Your task to perform on an android device: open app "Chime – Mobile Banking" (install if not already installed) and go to login screen Image 0: 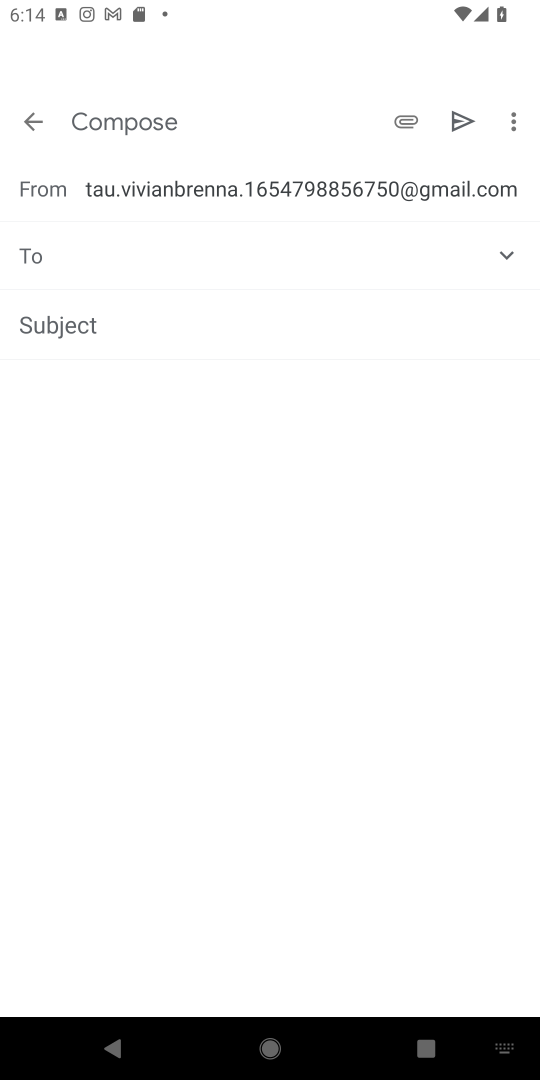
Step 0: press home button
Your task to perform on an android device: open app "Chime – Mobile Banking" (install if not already installed) and go to login screen Image 1: 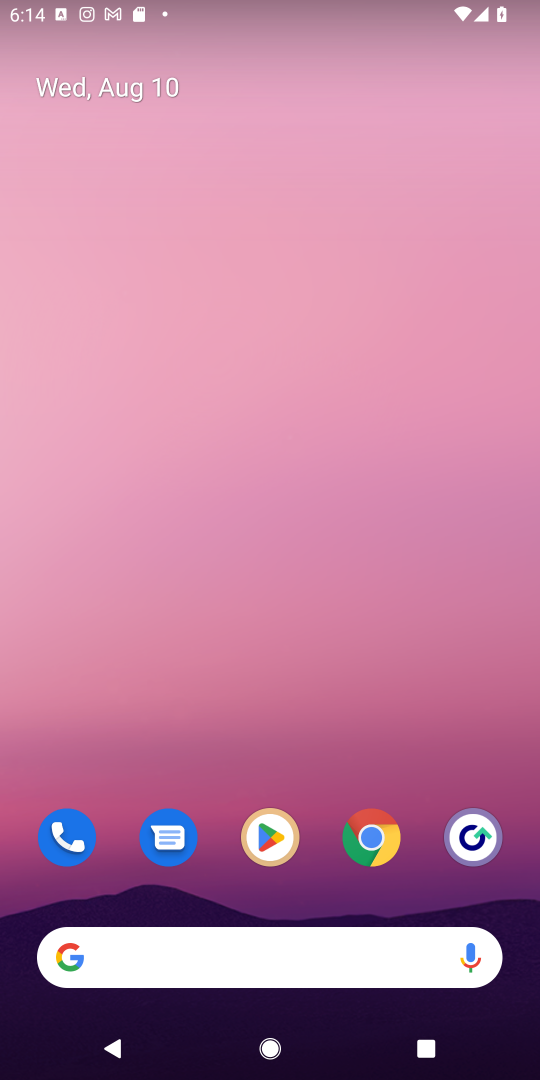
Step 1: click (372, 832)
Your task to perform on an android device: open app "Chime – Mobile Banking" (install if not already installed) and go to login screen Image 2: 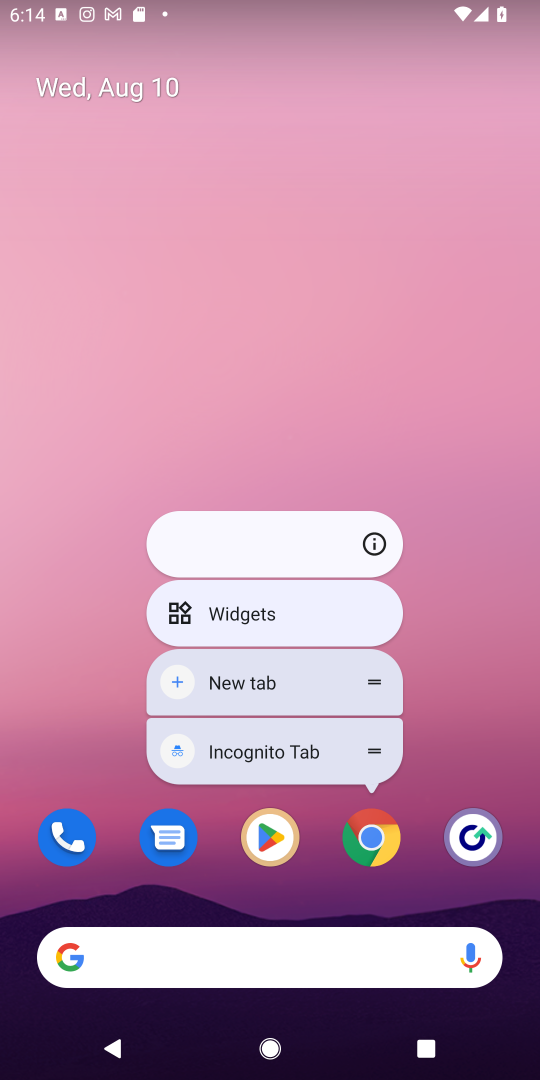
Step 2: click (372, 835)
Your task to perform on an android device: open app "Chime – Mobile Banking" (install if not already installed) and go to login screen Image 3: 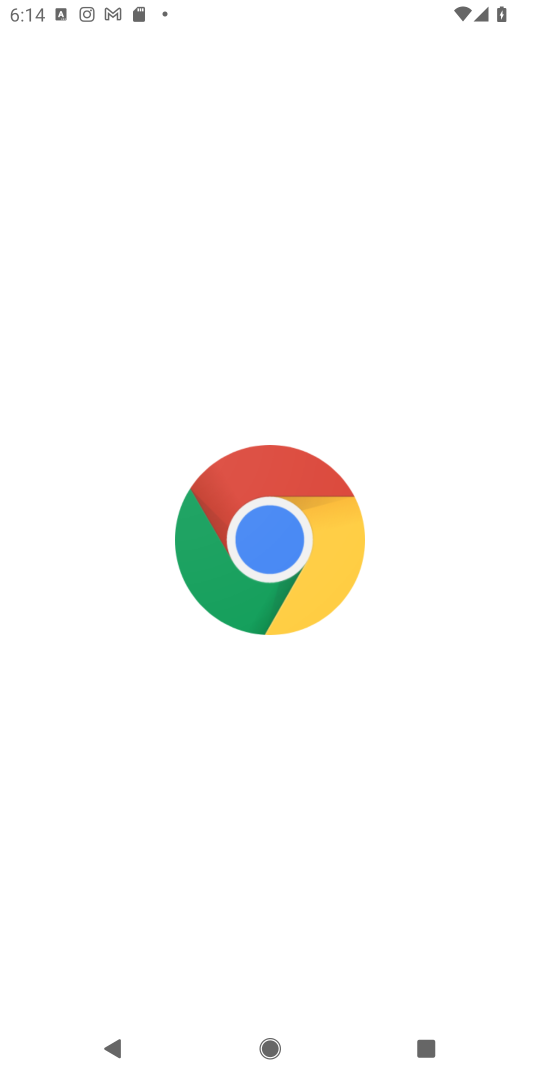
Step 3: press home button
Your task to perform on an android device: open app "Chime – Mobile Banking" (install if not already installed) and go to login screen Image 4: 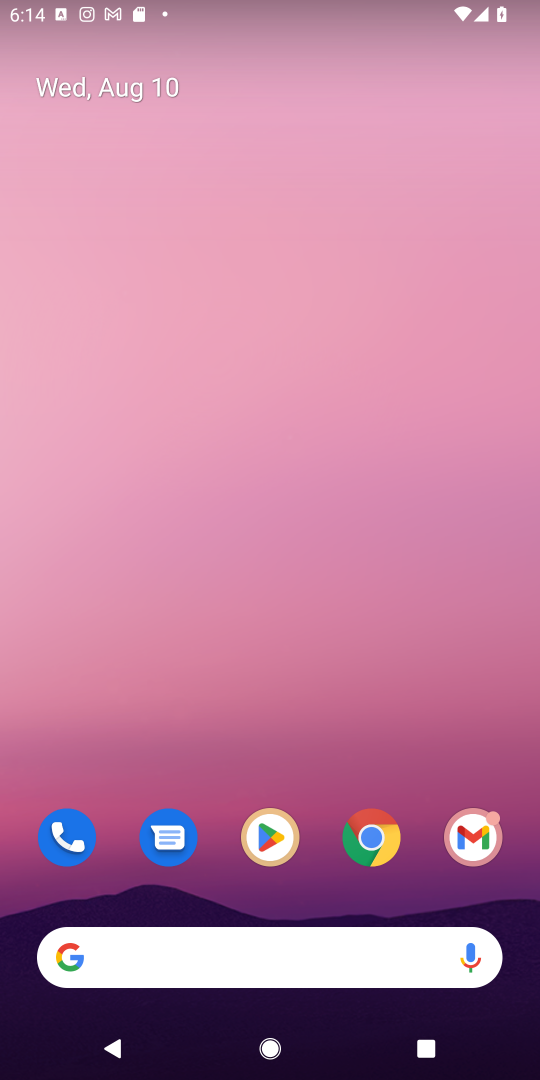
Step 4: click (267, 824)
Your task to perform on an android device: open app "Chime – Mobile Banking" (install if not already installed) and go to login screen Image 5: 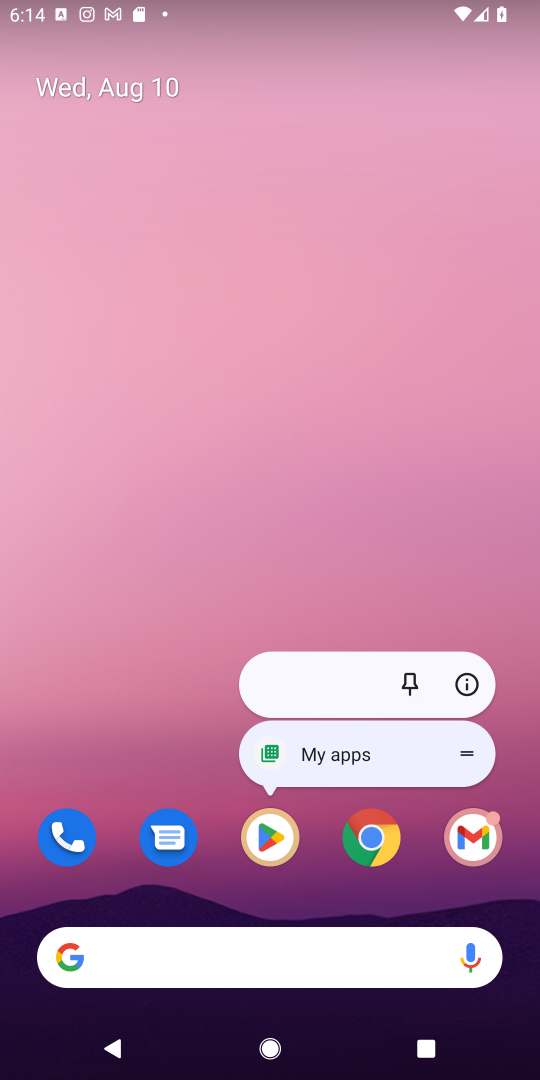
Step 5: click (267, 827)
Your task to perform on an android device: open app "Chime – Mobile Banking" (install if not already installed) and go to login screen Image 6: 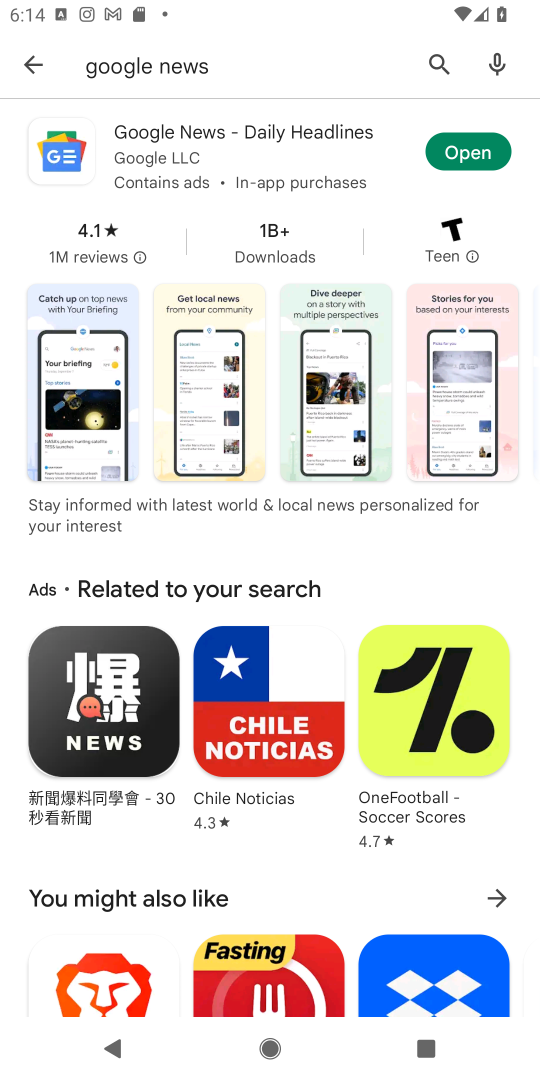
Step 6: click (434, 59)
Your task to perform on an android device: open app "Chime – Mobile Banking" (install if not already installed) and go to login screen Image 7: 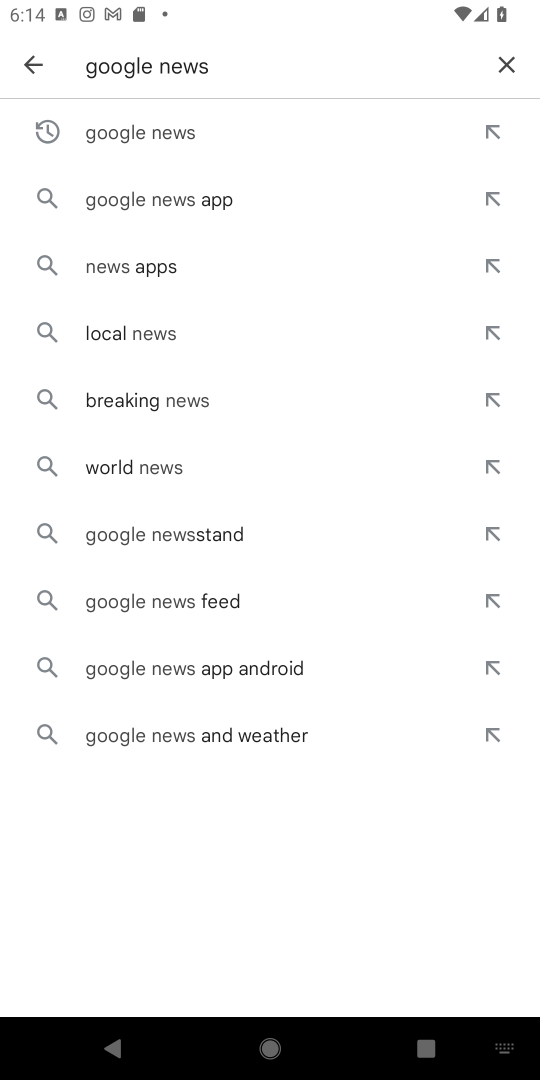
Step 7: click (508, 54)
Your task to perform on an android device: open app "Chime – Mobile Banking" (install if not already installed) and go to login screen Image 8: 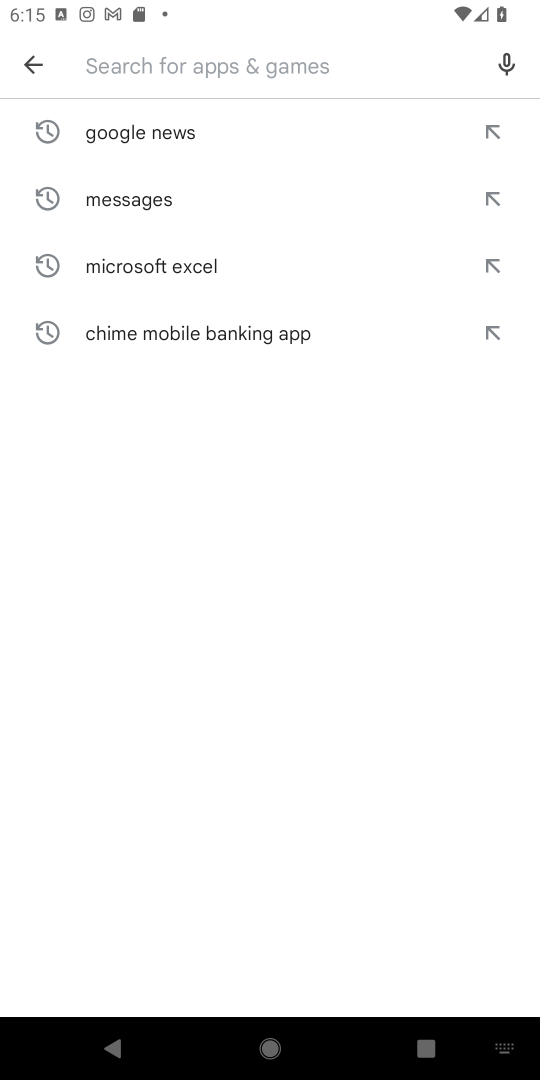
Step 8: type "Chime Mobile Banking"
Your task to perform on an android device: open app "Chime – Mobile Banking" (install if not already installed) and go to login screen Image 9: 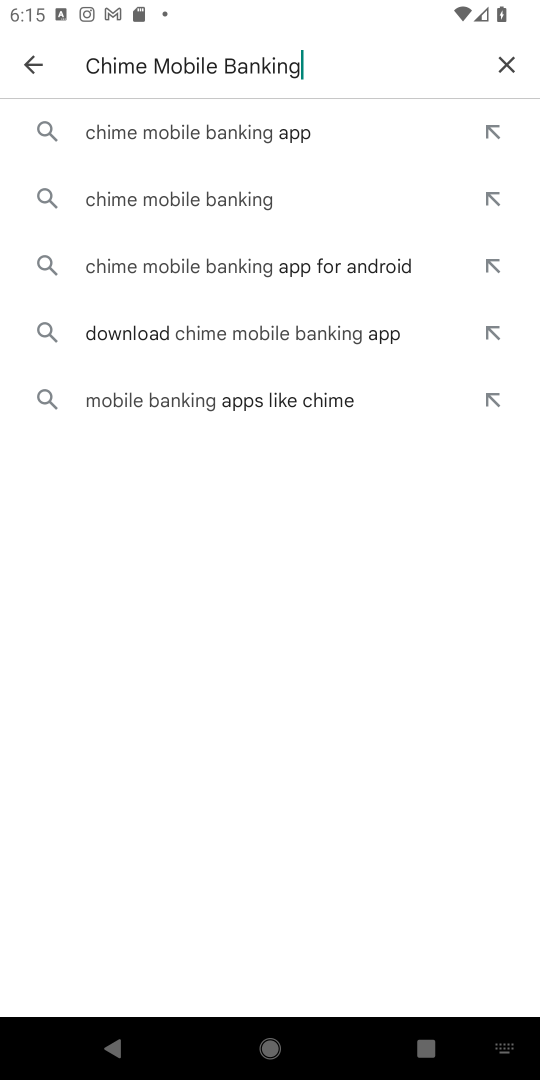
Step 9: click (262, 129)
Your task to perform on an android device: open app "Chime – Mobile Banking" (install if not already installed) and go to login screen Image 10: 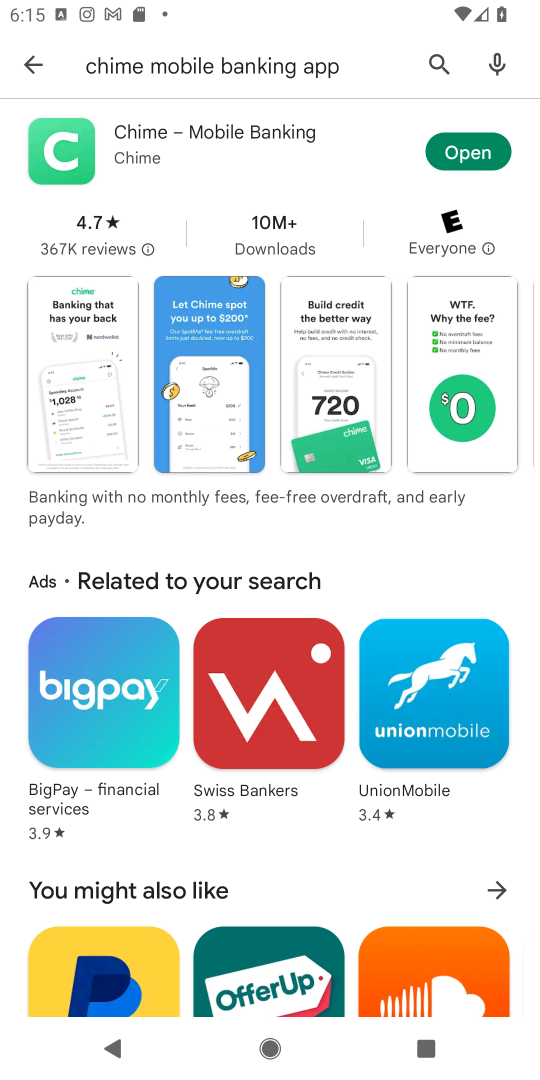
Step 10: click (486, 154)
Your task to perform on an android device: open app "Chime – Mobile Banking" (install if not already installed) and go to login screen Image 11: 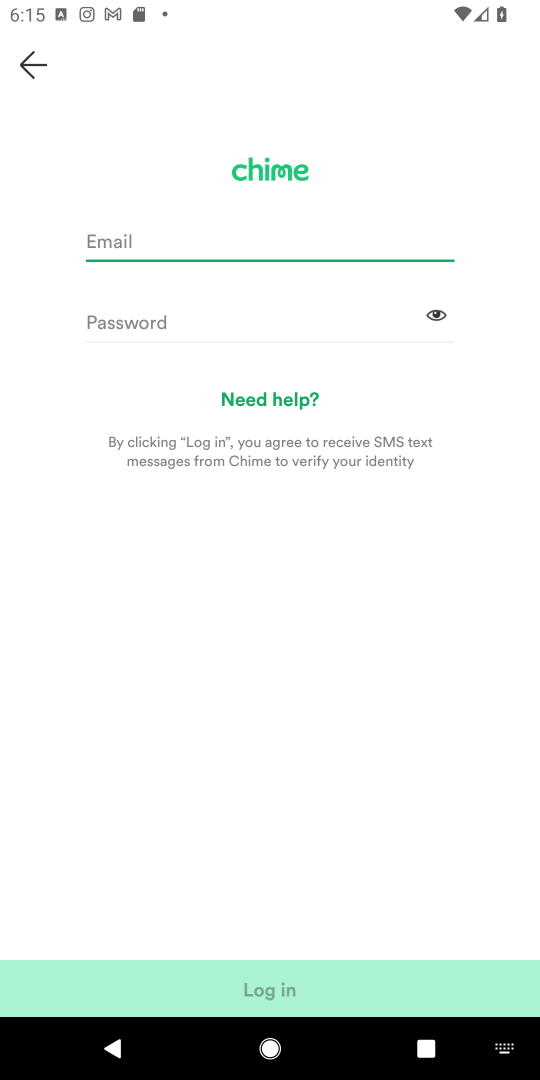
Step 11: task complete